Your task to perform on an android device: Search for vegetarian restaurants on Maps Image 0: 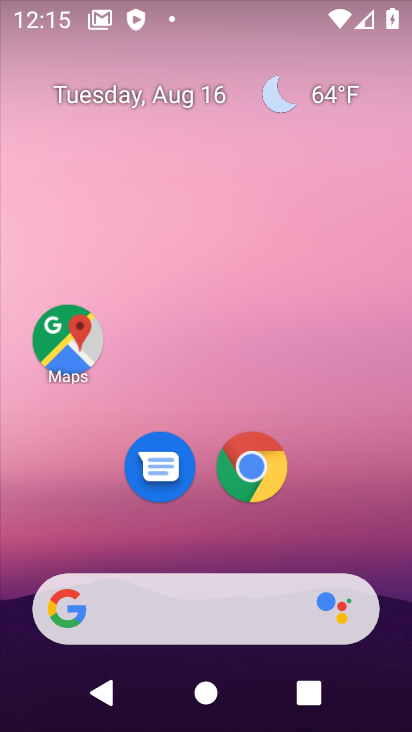
Step 0: press home button
Your task to perform on an android device: Search for vegetarian restaurants on Maps Image 1: 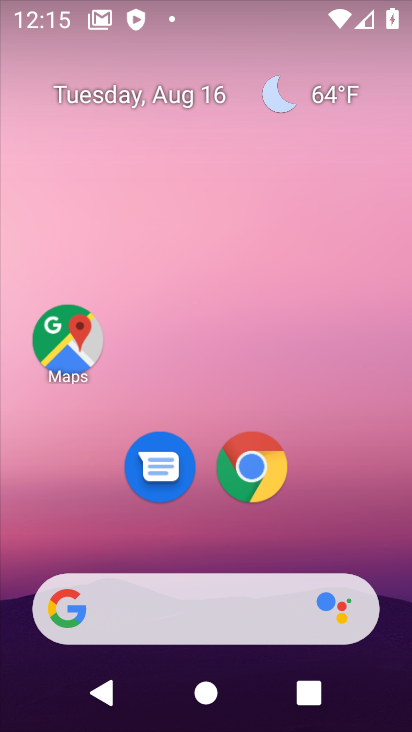
Step 1: drag from (314, 525) to (343, 136)
Your task to perform on an android device: Search for vegetarian restaurants on Maps Image 2: 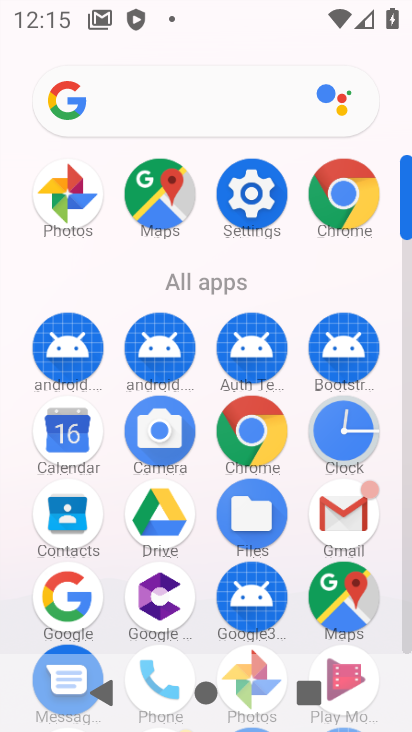
Step 2: click (339, 600)
Your task to perform on an android device: Search for vegetarian restaurants on Maps Image 3: 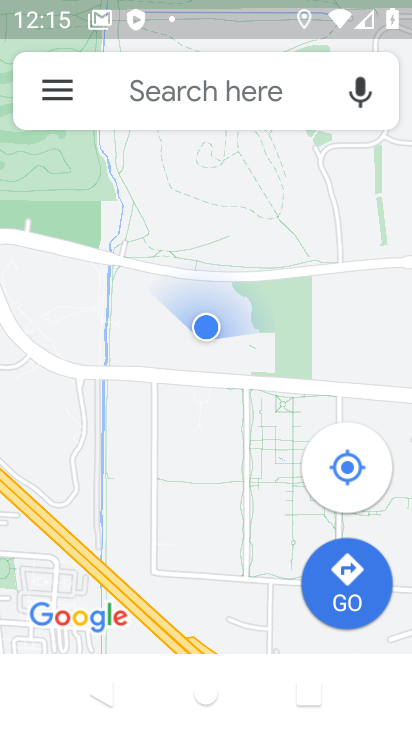
Step 3: click (148, 94)
Your task to perform on an android device: Search for vegetarian restaurants on Maps Image 4: 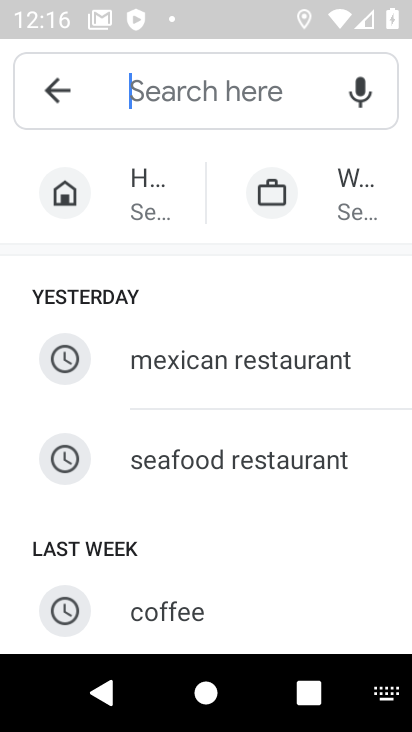
Step 4: type "vegetrain restaurants"
Your task to perform on an android device: Search for vegetarian restaurants on Maps Image 5: 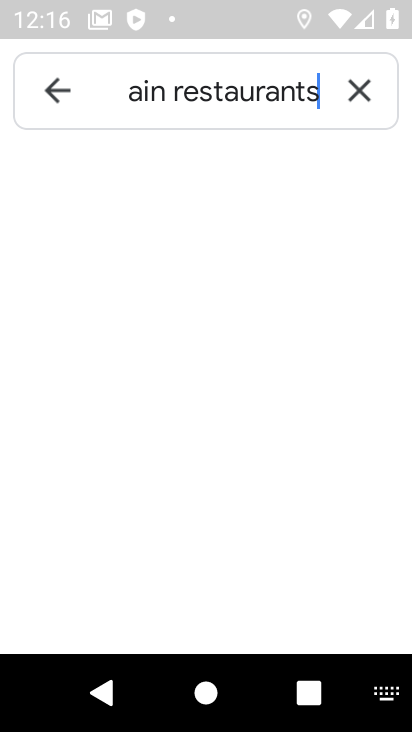
Step 5: press enter
Your task to perform on an android device: Search for vegetarian restaurants on Maps Image 6: 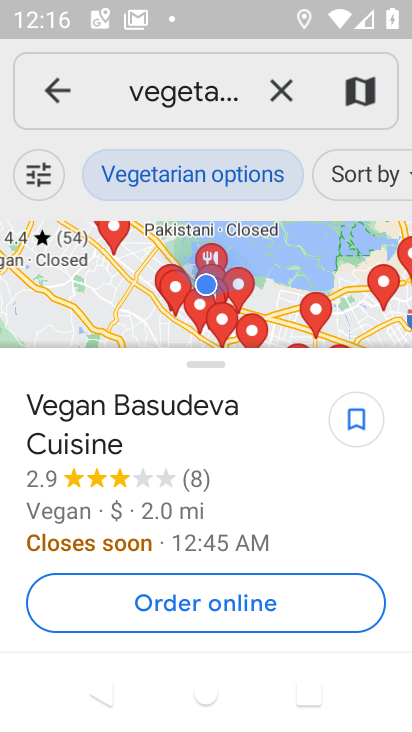
Step 6: task complete